Your task to perform on an android device: Go to ESPN.com Image 0: 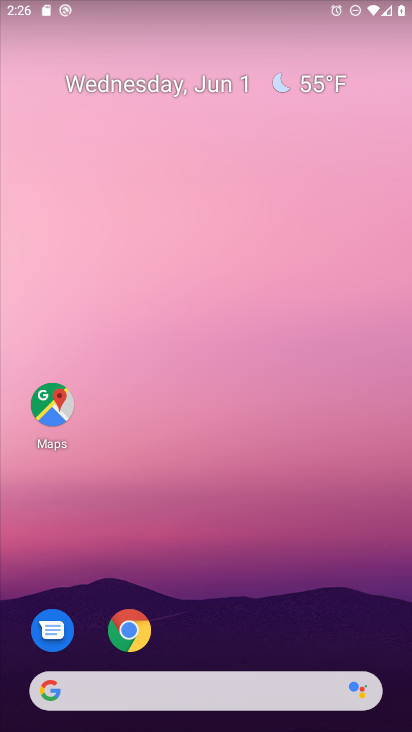
Step 0: drag from (307, 683) to (260, 84)
Your task to perform on an android device: Go to ESPN.com Image 1: 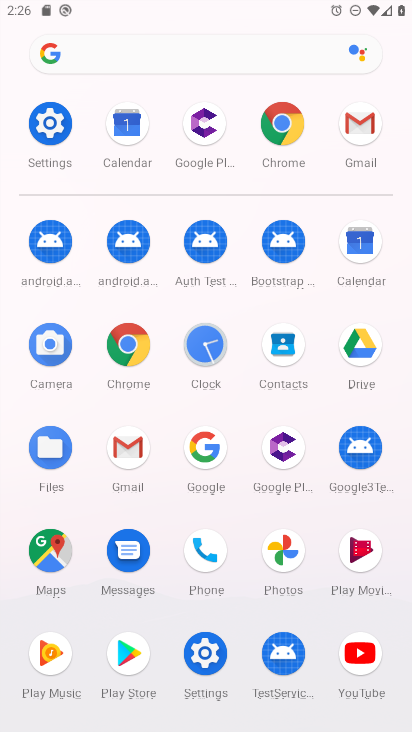
Step 1: click (123, 354)
Your task to perform on an android device: Go to ESPN.com Image 2: 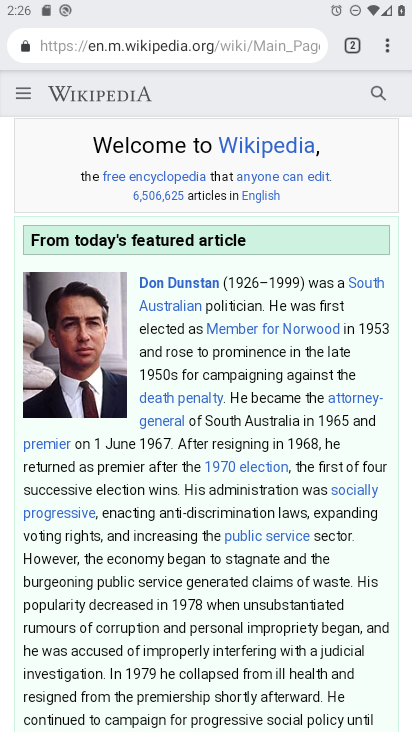
Step 2: click (238, 41)
Your task to perform on an android device: Go to ESPN.com Image 3: 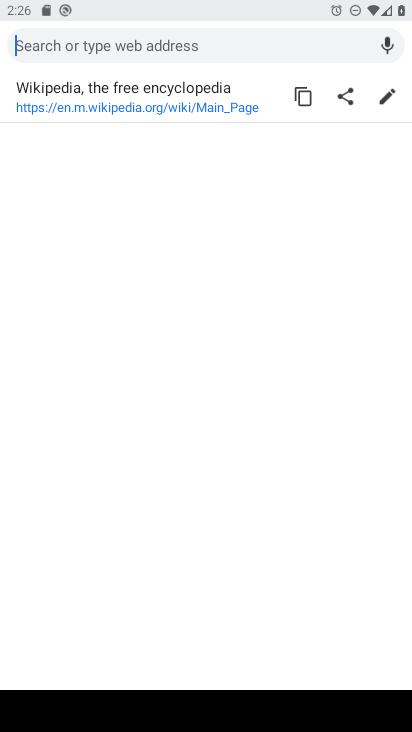
Step 3: type "espn.com"
Your task to perform on an android device: Go to ESPN.com Image 4: 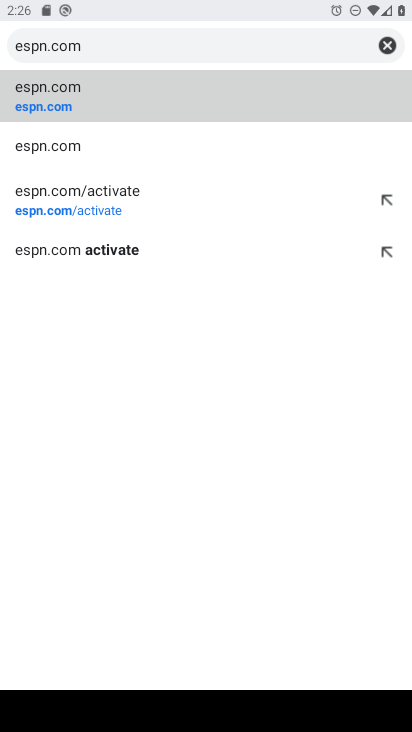
Step 4: click (132, 97)
Your task to perform on an android device: Go to ESPN.com Image 5: 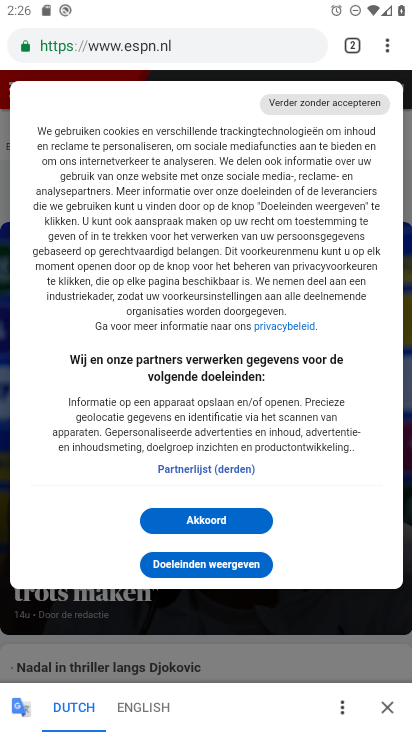
Step 5: task complete